Your task to perform on an android device: Is it going to rain today? Image 0: 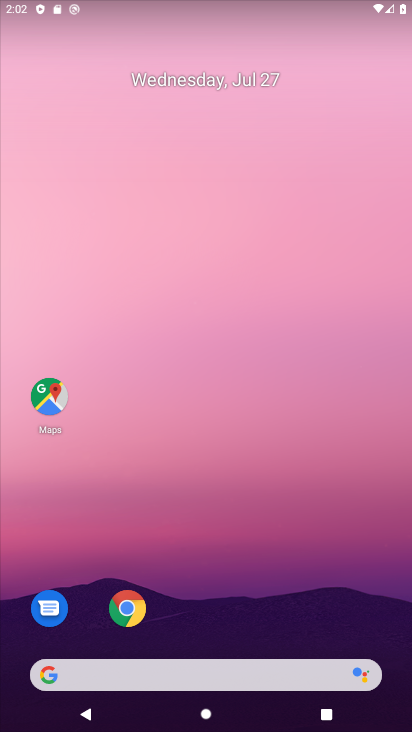
Step 0: click (225, 674)
Your task to perform on an android device: Is it going to rain today? Image 1: 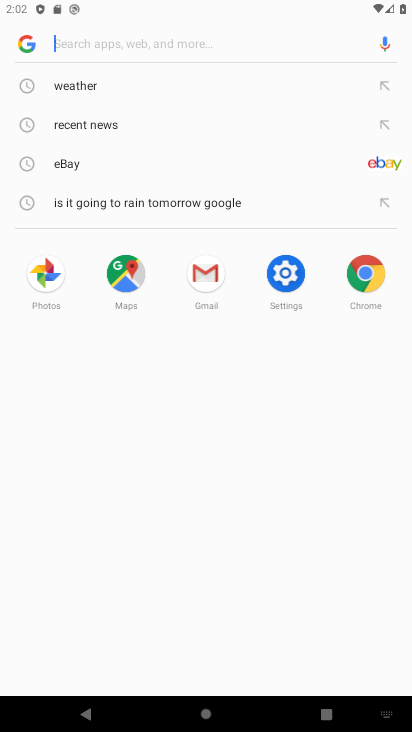
Step 1: click (95, 90)
Your task to perform on an android device: Is it going to rain today? Image 2: 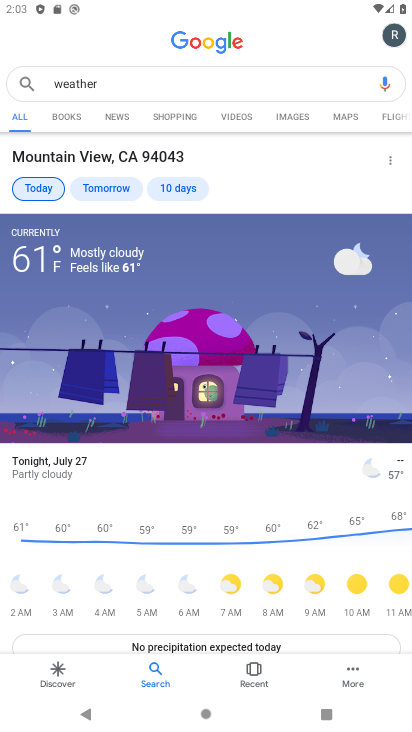
Step 2: task complete